Your task to perform on an android device: When is my next appointment? Image 0: 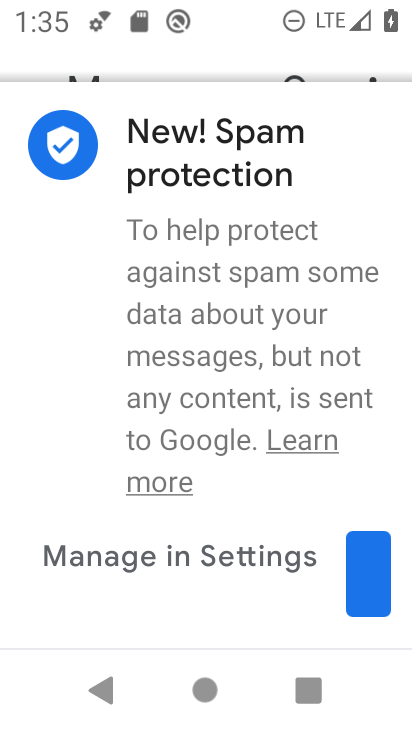
Step 0: press home button
Your task to perform on an android device: When is my next appointment? Image 1: 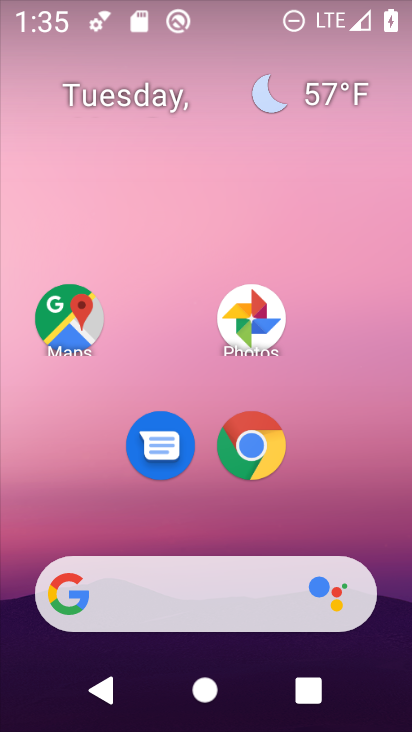
Step 1: drag from (370, 521) to (367, 242)
Your task to perform on an android device: When is my next appointment? Image 2: 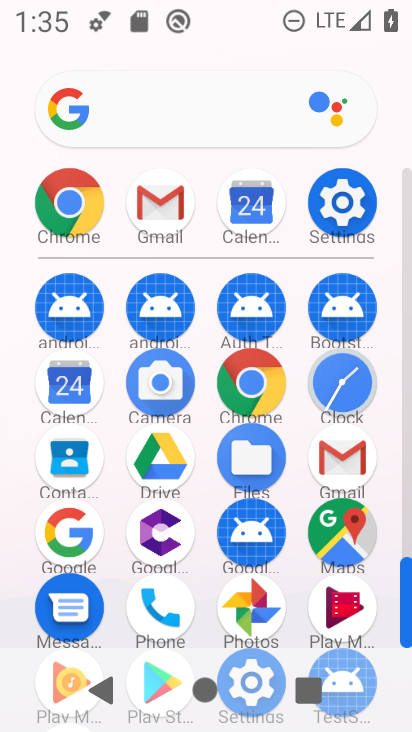
Step 2: click (78, 386)
Your task to perform on an android device: When is my next appointment? Image 3: 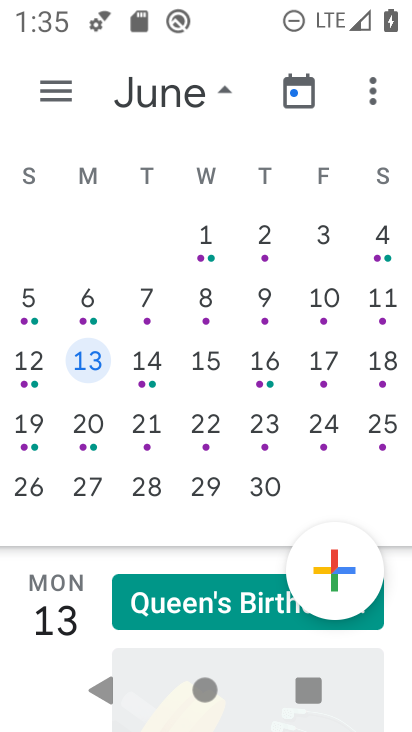
Step 3: drag from (31, 207) to (67, 206)
Your task to perform on an android device: When is my next appointment? Image 4: 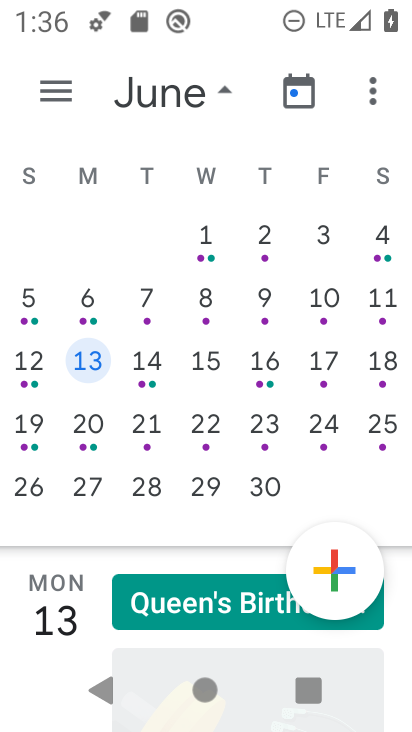
Step 4: drag from (185, 195) to (410, 259)
Your task to perform on an android device: When is my next appointment? Image 5: 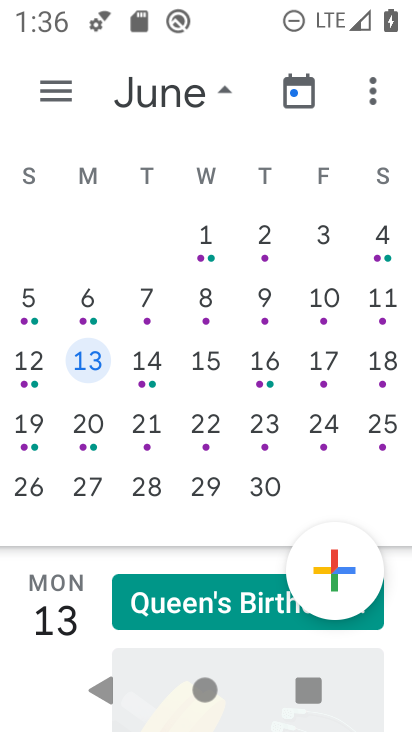
Step 5: drag from (69, 206) to (407, 236)
Your task to perform on an android device: When is my next appointment? Image 6: 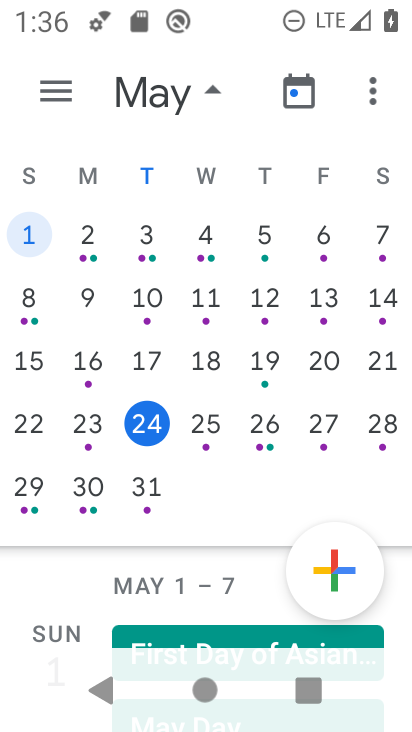
Step 6: click (202, 422)
Your task to perform on an android device: When is my next appointment? Image 7: 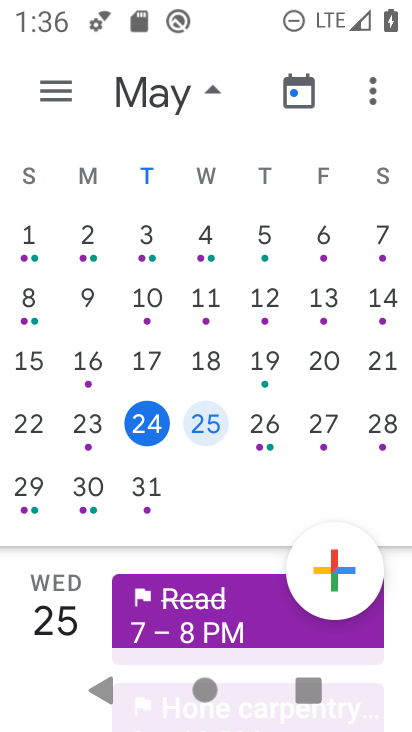
Step 7: task complete